Your task to perform on an android device: check storage Image 0: 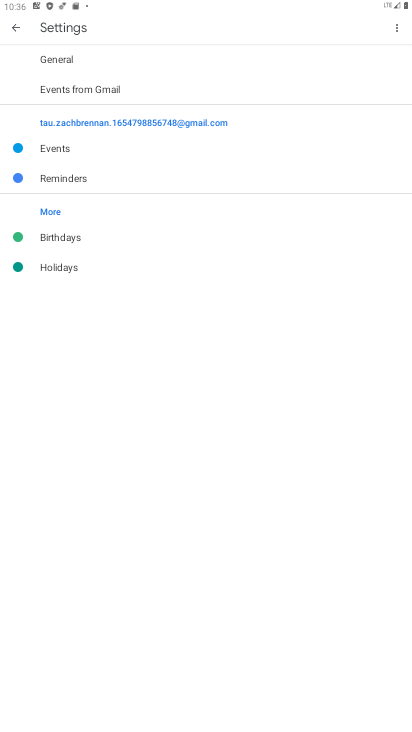
Step 0: press home button
Your task to perform on an android device: check storage Image 1: 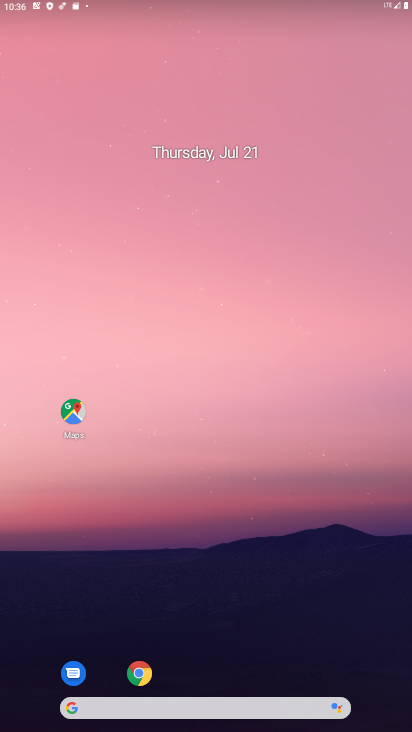
Step 1: drag from (220, 642) to (174, 212)
Your task to perform on an android device: check storage Image 2: 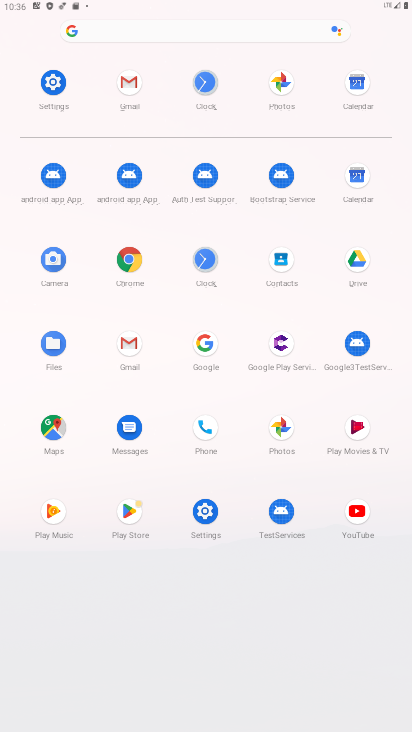
Step 2: click (69, 73)
Your task to perform on an android device: check storage Image 3: 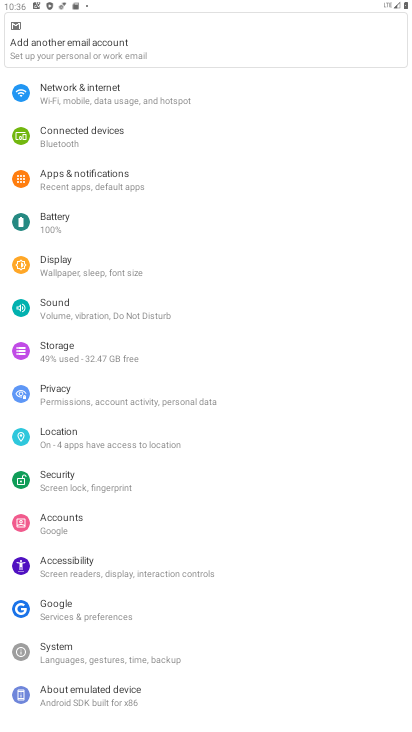
Step 3: click (120, 361)
Your task to perform on an android device: check storage Image 4: 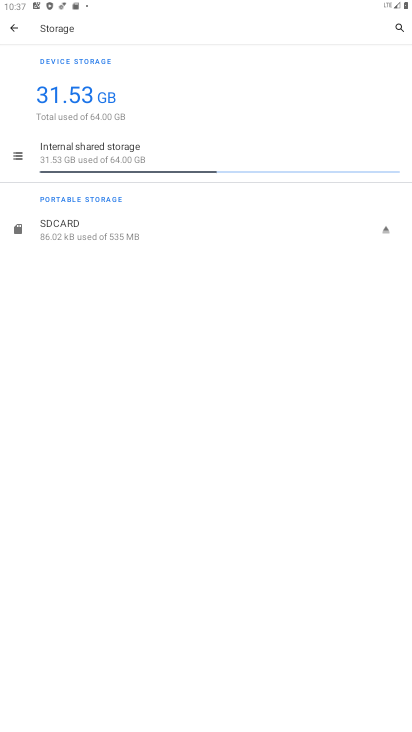
Step 4: click (115, 155)
Your task to perform on an android device: check storage Image 5: 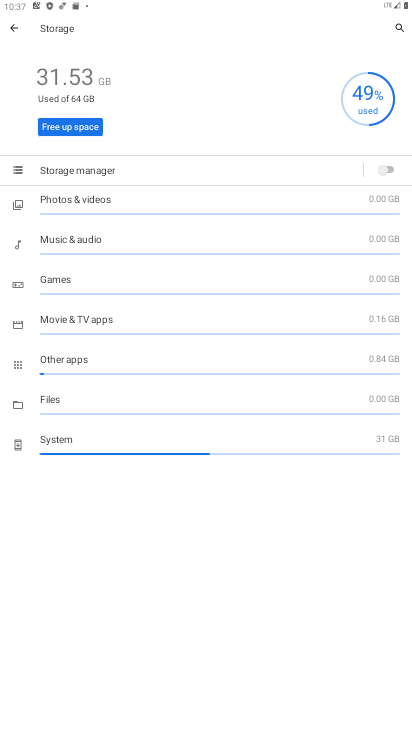
Step 5: task complete